Your task to perform on an android device: make emails show in primary in the gmail app Image 0: 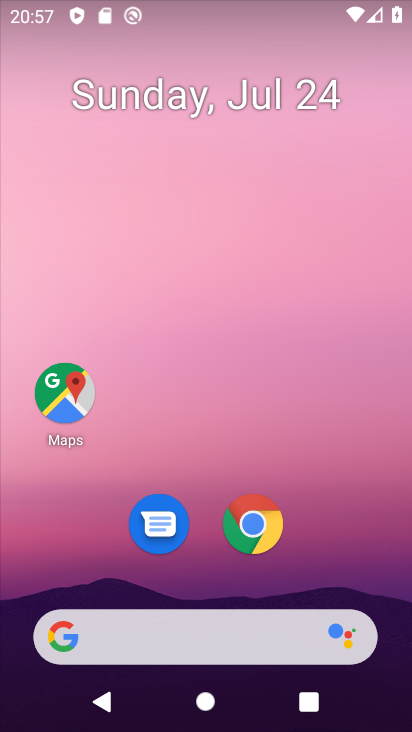
Step 0: press home button
Your task to perform on an android device: make emails show in primary in the gmail app Image 1: 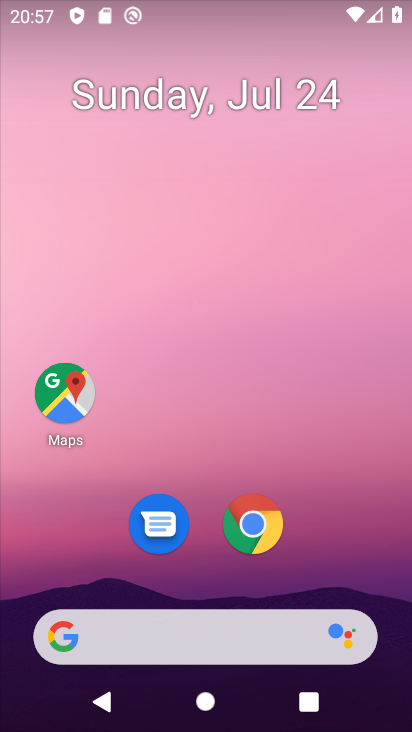
Step 1: drag from (173, 646) to (315, 62)
Your task to perform on an android device: make emails show in primary in the gmail app Image 2: 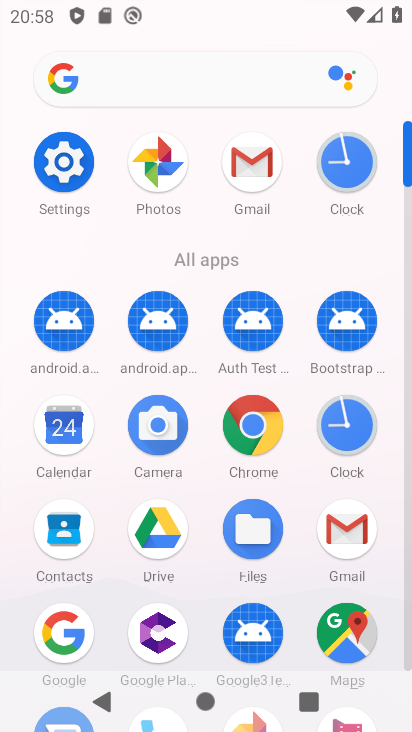
Step 2: click (258, 175)
Your task to perform on an android device: make emails show in primary in the gmail app Image 3: 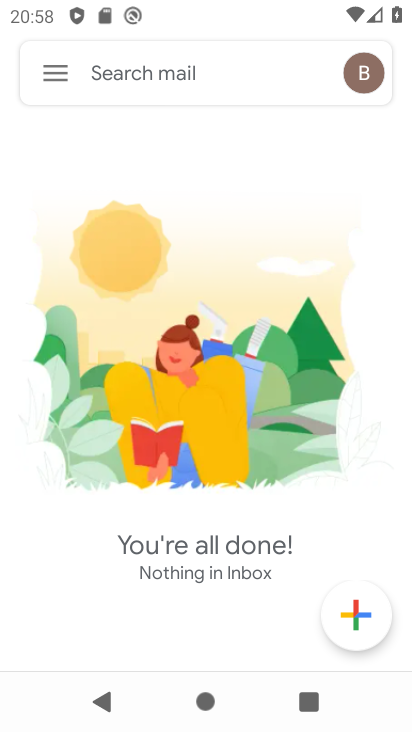
Step 3: click (47, 76)
Your task to perform on an android device: make emails show in primary in the gmail app Image 4: 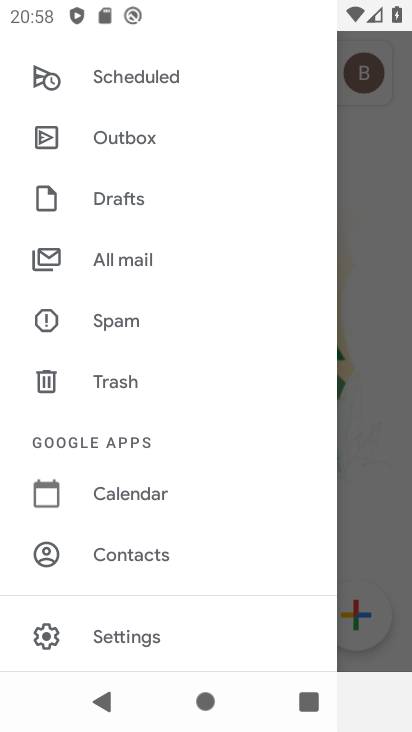
Step 4: click (136, 637)
Your task to perform on an android device: make emails show in primary in the gmail app Image 5: 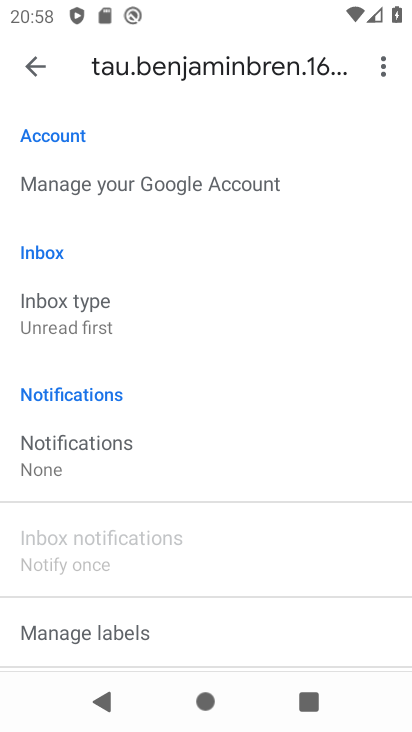
Step 5: task complete